Your task to perform on an android device: Open CNN.com Image 0: 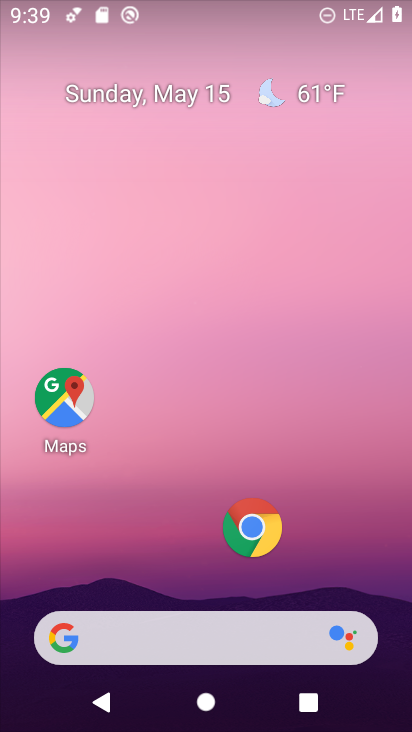
Step 0: press home button
Your task to perform on an android device: Open CNN.com Image 1: 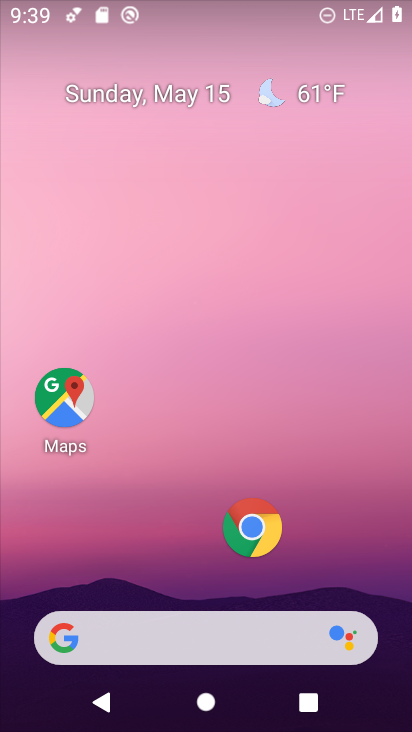
Step 1: click (258, 516)
Your task to perform on an android device: Open CNN.com Image 2: 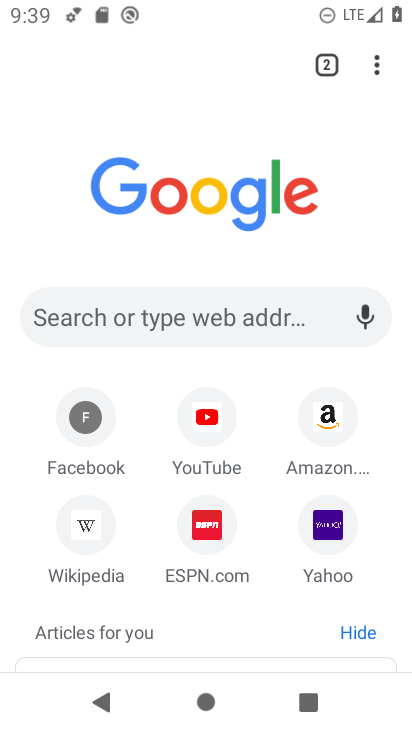
Step 2: click (201, 322)
Your task to perform on an android device: Open CNN.com Image 3: 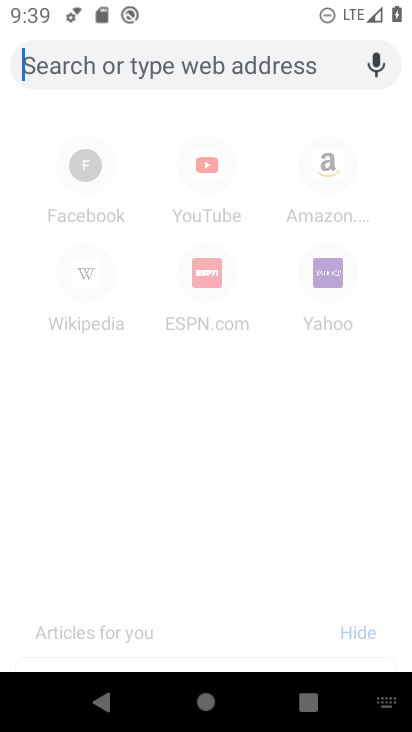
Step 3: type "cnn.com"
Your task to perform on an android device: Open CNN.com Image 4: 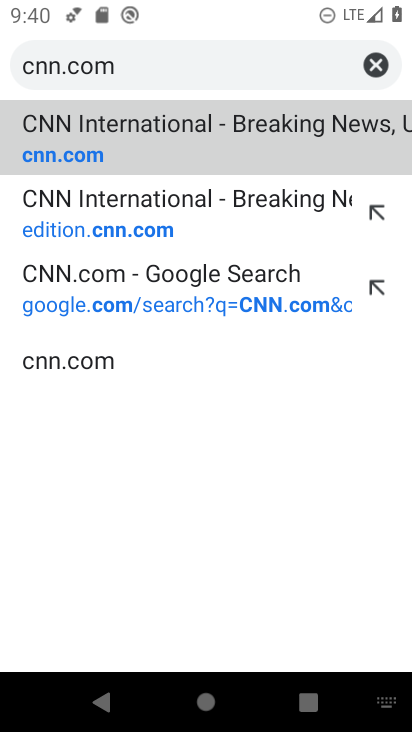
Step 4: click (115, 122)
Your task to perform on an android device: Open CNN.com Image 5: 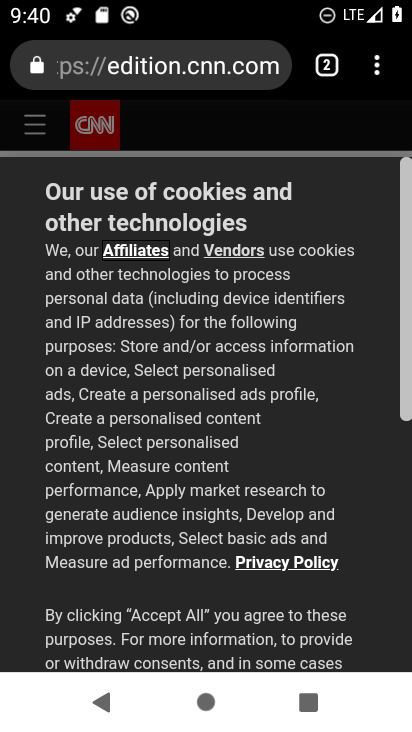
Step 5: drag from (221, 613) to (212, 133)
Your task to perform on an android device: Open CNN.com Image 6: 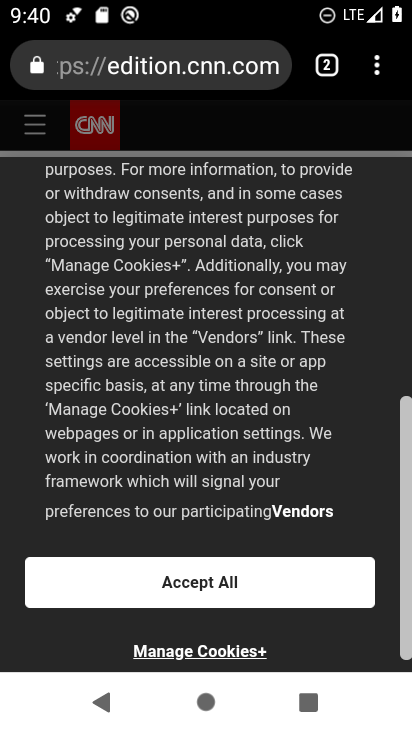
Step 6: click (213, 581)
Your task to perform on an android device: Open CNN.com Image 7: 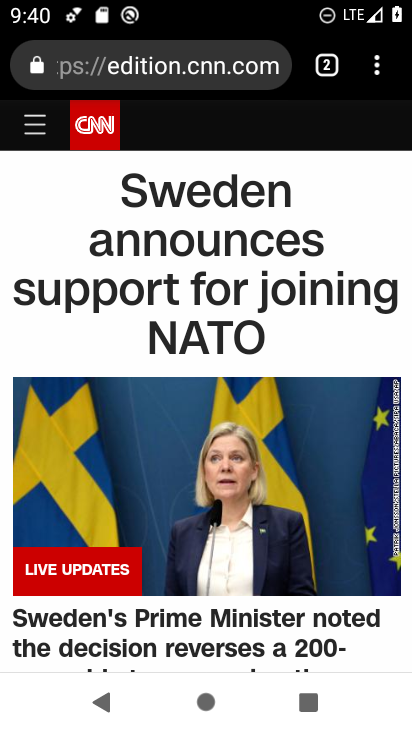
Step 7: task complete